Your task to perform on an android device: Open display settings Image 0: 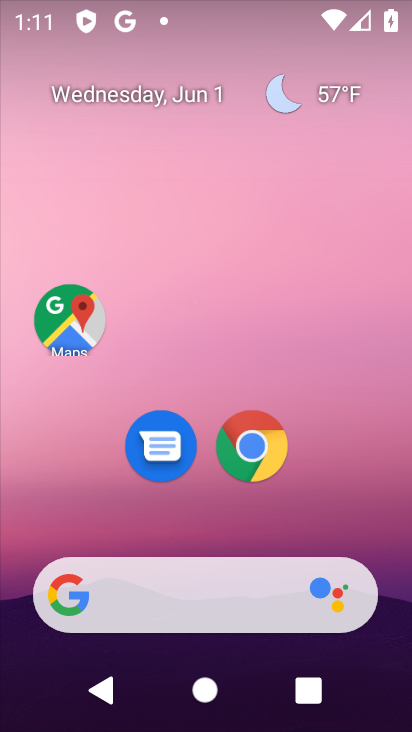
Step 0: drag from (273, 525) to (313, 96)
Your task to perform on an android device: Open display settings Image 1: 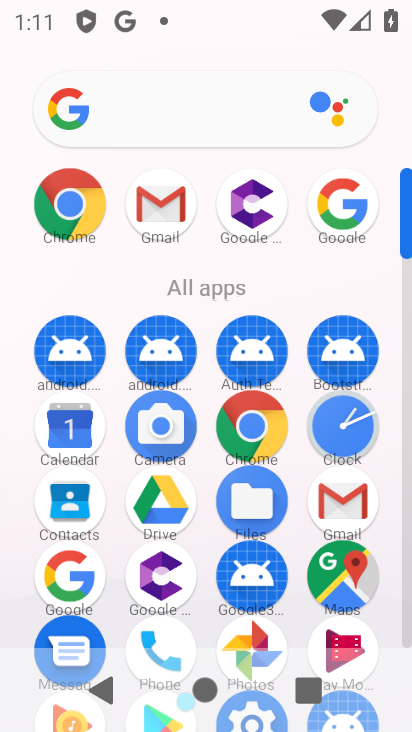
Step 1: drag from (270, 541) to (277, 212)
Your task to perform on an android device: Open display settings Image 2: 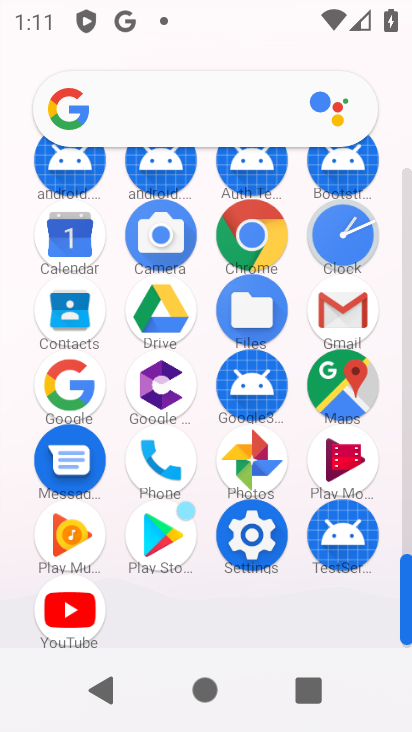
Step 2: drag from (254, 536) to (119, 174)
Your task to perform on an android device: Open display settings Image 3: 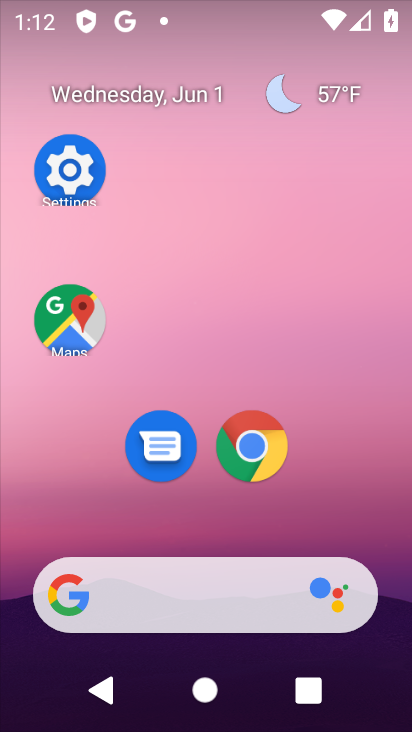
Step 3: click (85, 165)
Your task to perform on an android device: Open display settings Image 4: 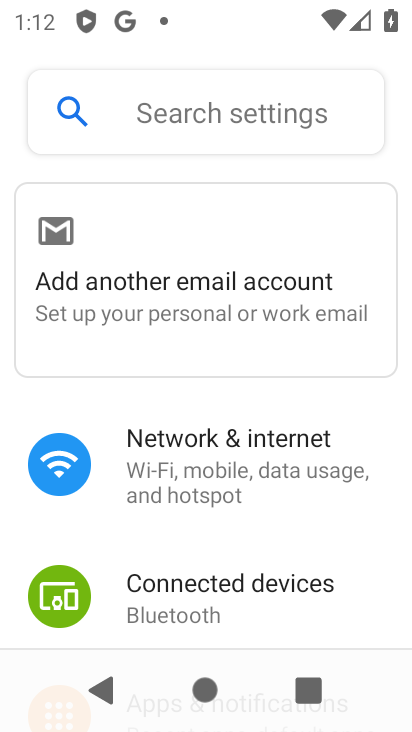
Step 4: drag from (311, 428) to (341, 227)
Your task to perform on an android device: Open display settings Image 5: 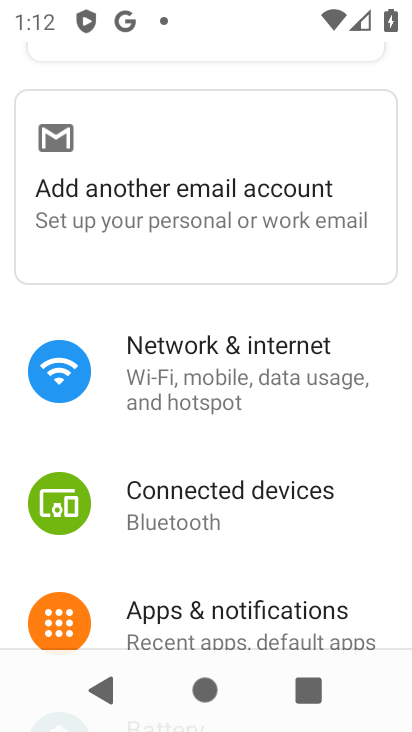
Step 5: drag from (314, 499) to (340, 236)
Your task to perform on an android device: Open display settings Image 6: 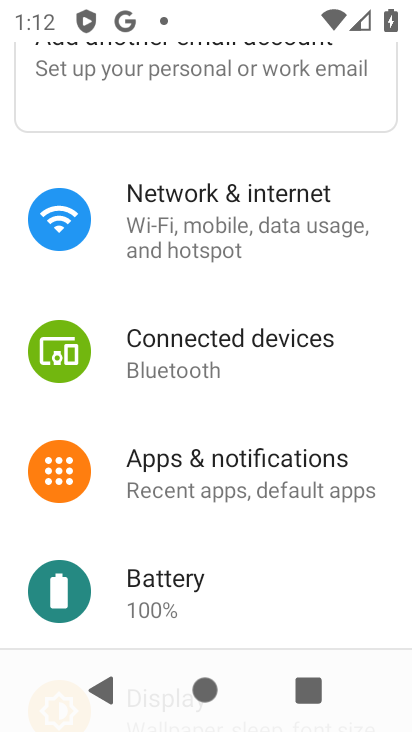
Step 6: drag from (290, 545) to (331, 169)
Your task to perform on an android device: Open display settings Image 7: 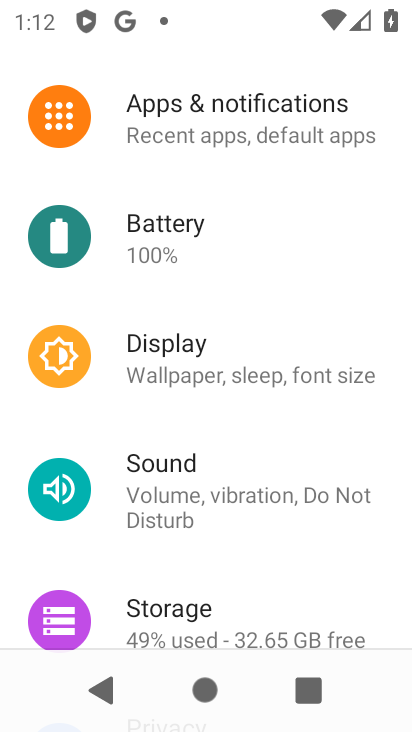
Step 7: click (175, 357)
Your task to perform on an android device: Open display settings Image 8: 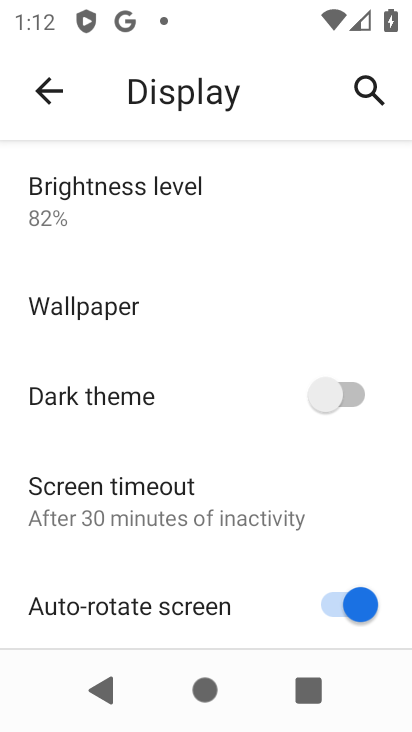
Step 8: task complete